Your task to perform on an android device: check storage Image 0: 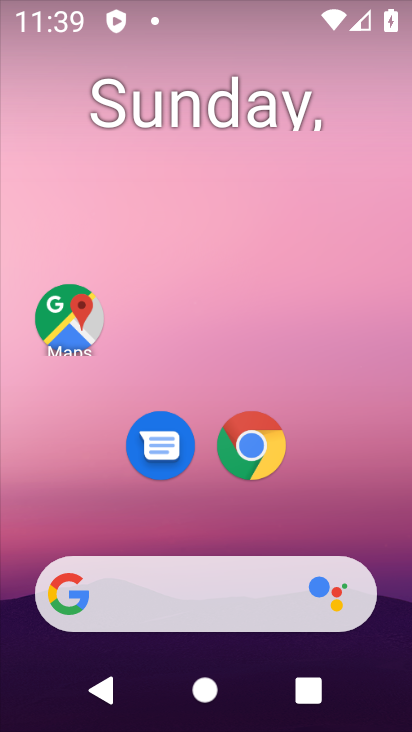
Step 0: drag from (381, 506) to (337, 75)
Your task to perform on an android device: check storage Image 1: 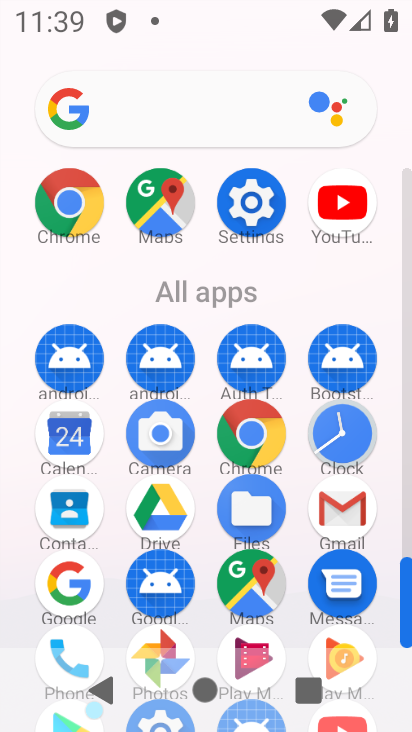
Step 1: click (257, 221)
Your task to perform on an android device: check storage Image 2: 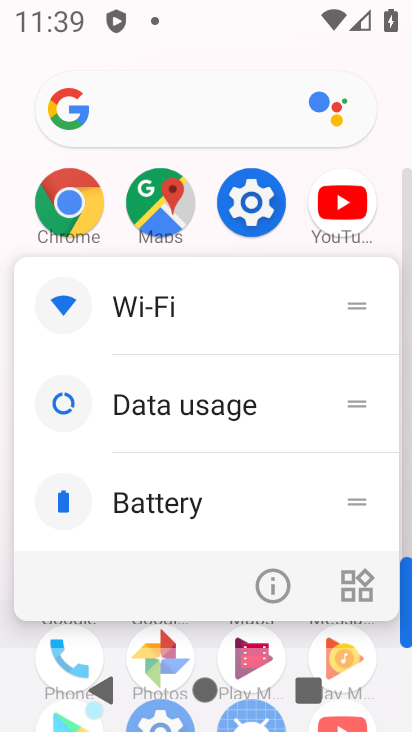
Step 2: click (257, 221)
Your task to perform on an android device: check storage Image 3: 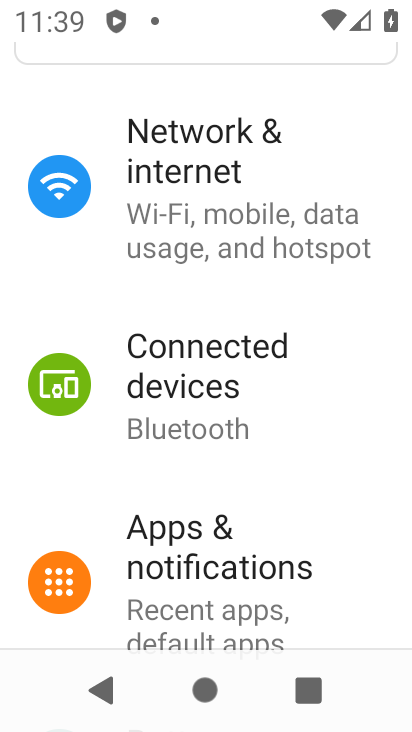
Step 3: drag from (310, 595) to (355, 217)
Your task to perform on an android device: check storage Image 4: 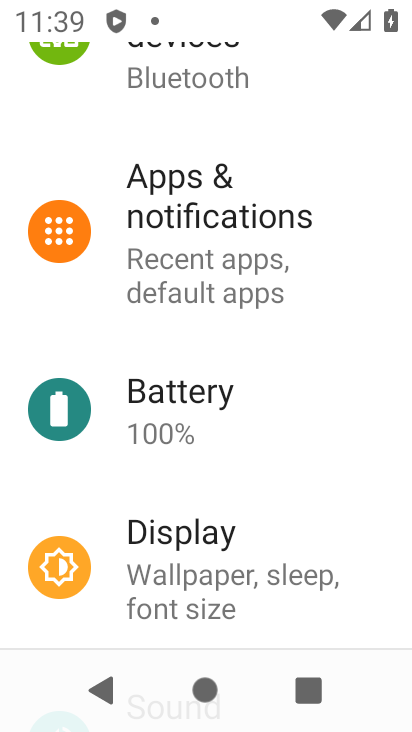
Step 4: drag from (269, 612) to (323, 224)
Your task to perform on an android device: check storage Image 5: 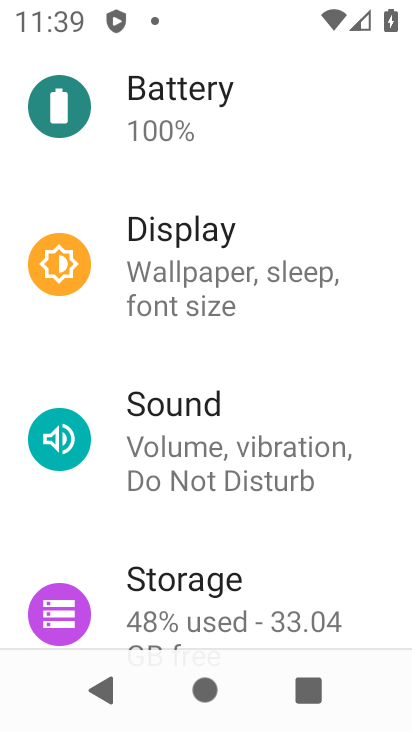
Step 5: click (212, 601)
Your task to perform on an android device: check storage Image 6: 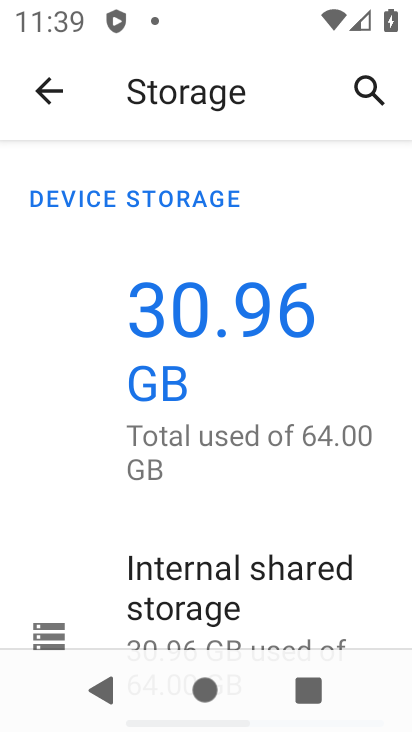
Step 6: drag from (141, 542) to (281, 182)
Your task to perform on an android device: check storage Image 7: 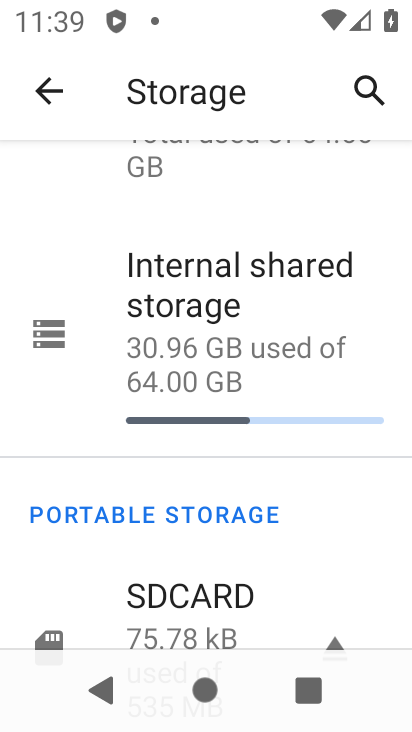
Step 7: click (46, 343)
Your task to perform on an android device: check storage Image 8: 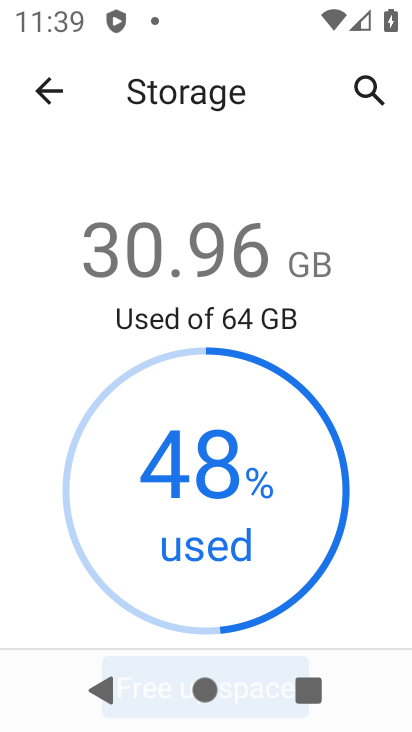
Step 8: drag from (38, 617) to (79, 274)
Your task to perform on an android device: check storage Image 9: 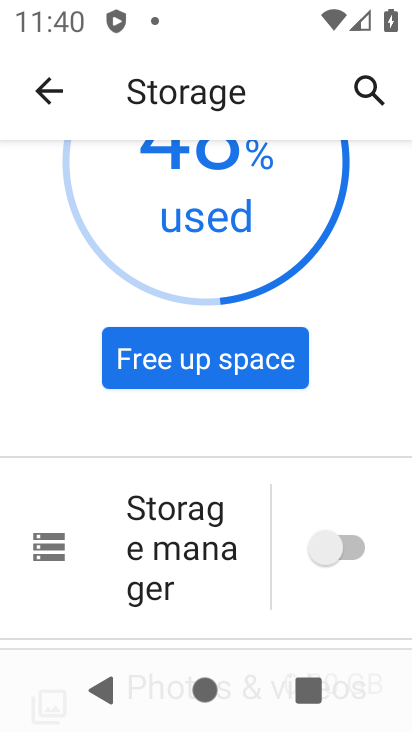
Step 9: click (50, 546)
Your task to perform on an android device: check storage Image 10: 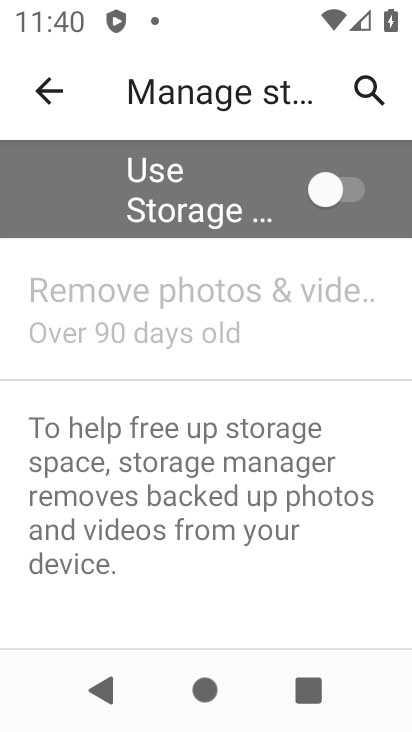
Step 10: task complete